Your task to perform on an android device: create a new album in the google photos Image 0: 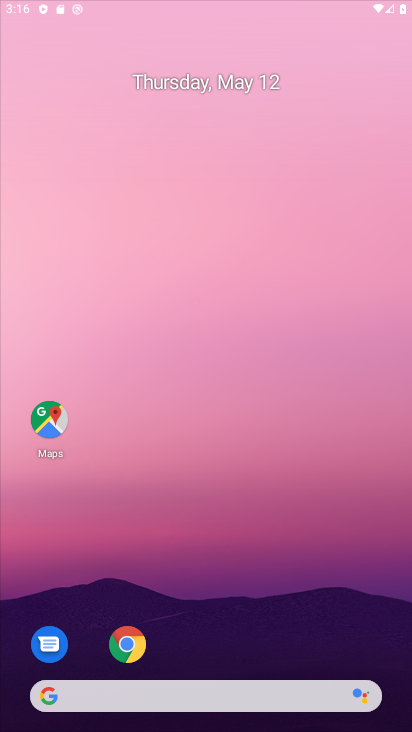
Step 0: click (222, 124)
Your task to perform on an android device: create a new album in the google photos Image 1: 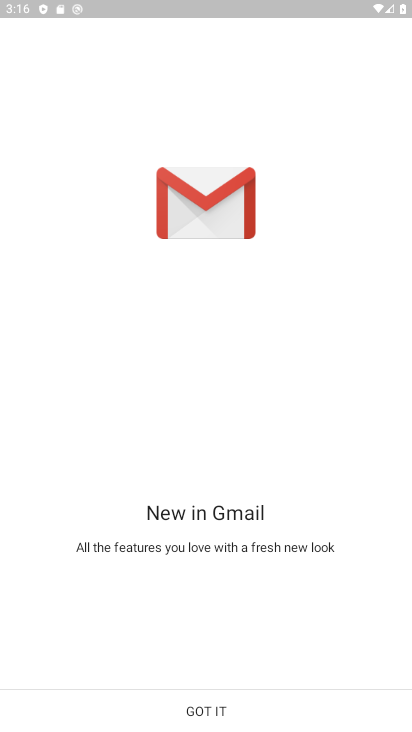
Step 1: press home button
Your task to perform on an android device: create a new album in the google photos Image 2: 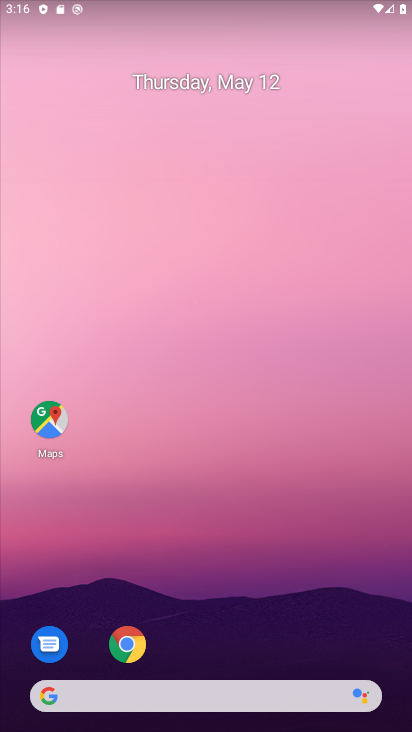
Step 2: drag from (247, 617) to (204, 84)
Your task to perform on an android device: create a new album in the google photos Image 3: 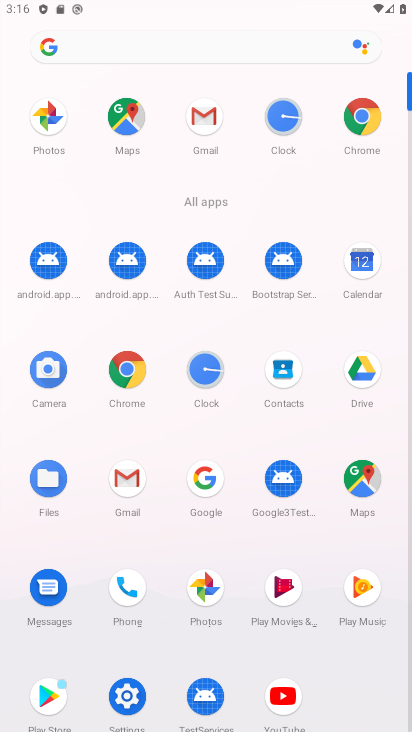
Step 3: click (47, 130)
Your task to perform on an android device: create a new album in the google photos Image 4: 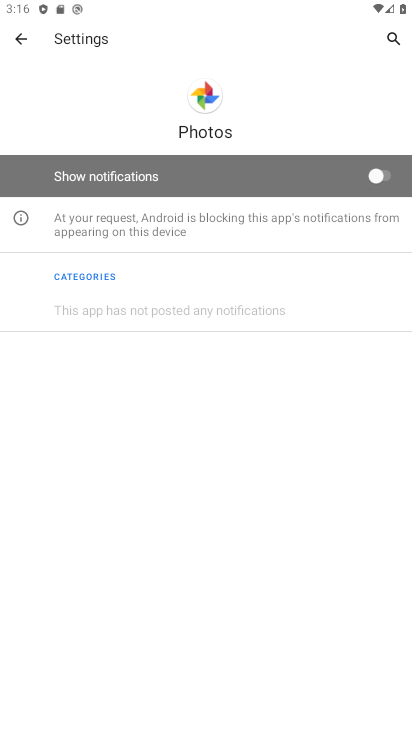
Step 4: press back button
Your task to perform on an android device: create a new album in the google photos Image 5: 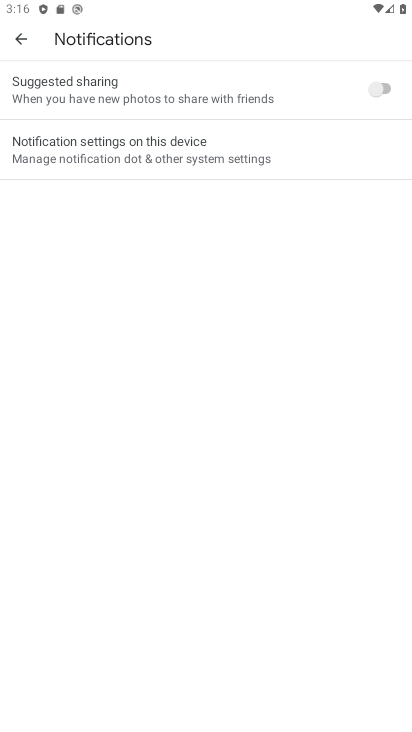
Step 5: press back button
Your task to perform on an android device: create a new album in the google photos Image 6: 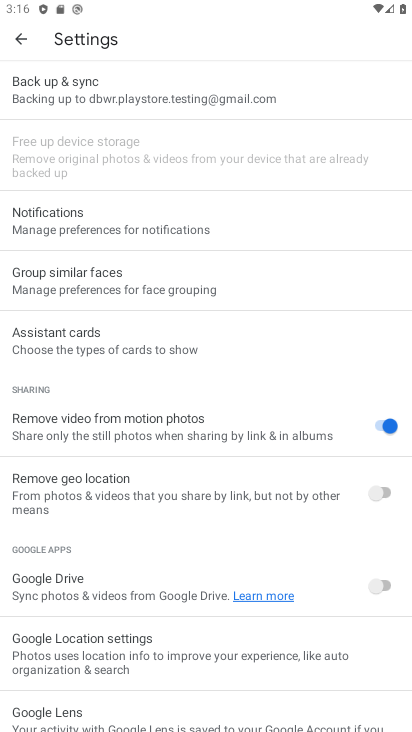
Step 6: press back button
Your task to perform on an android device: create a new album in the google photos Image 7: 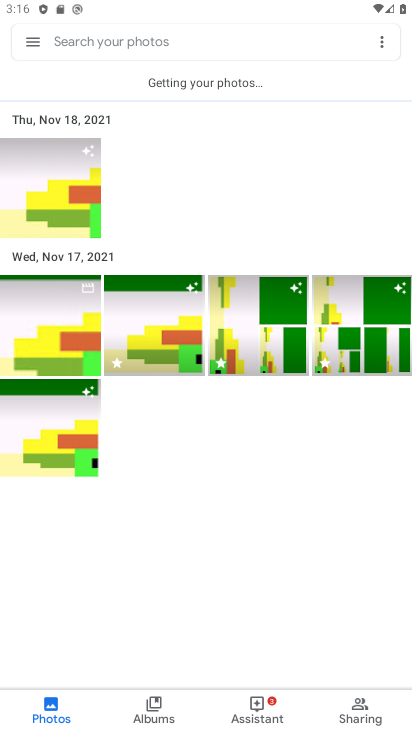
Step 7: click (373, 46)
Your task to perform on an android device: create a new album in the google photos Image 8: 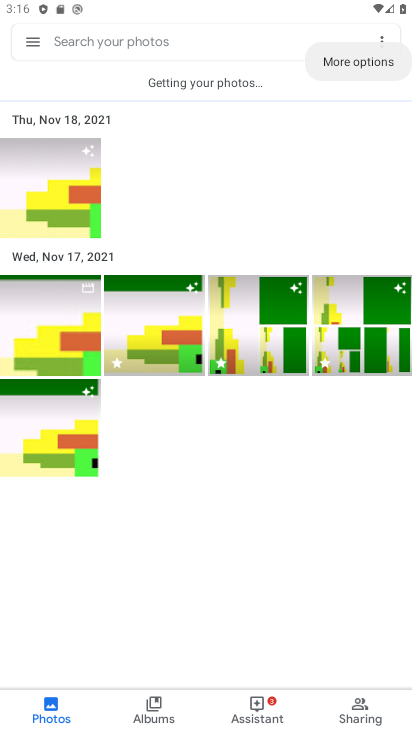
Step 8: click (383, 45)
Your task to perform on an android device: create a new album in the google photos Image 9: 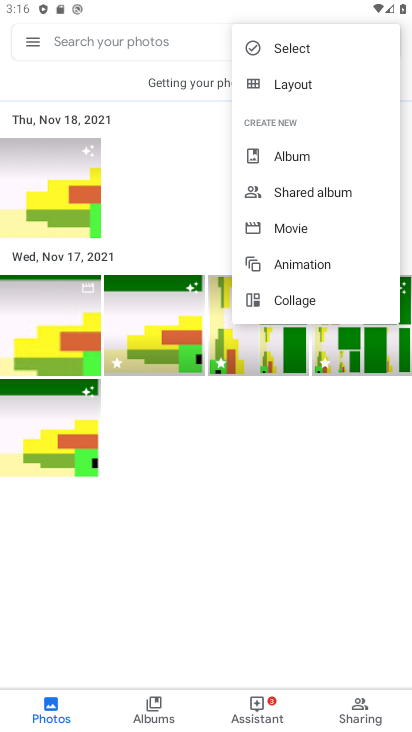
Step 9: click (297, 154)
Your task to perform on an android device: create a new album in the google photos Image 10: 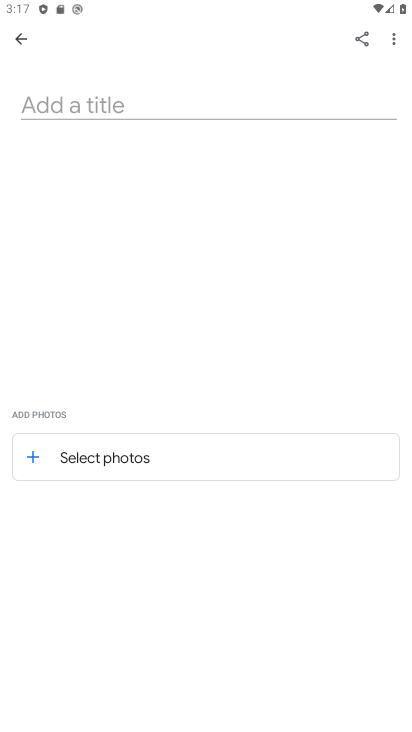
Step 10: click (113, 108)
Your task to perform on an android device: create a new album in the google photos Image 11: 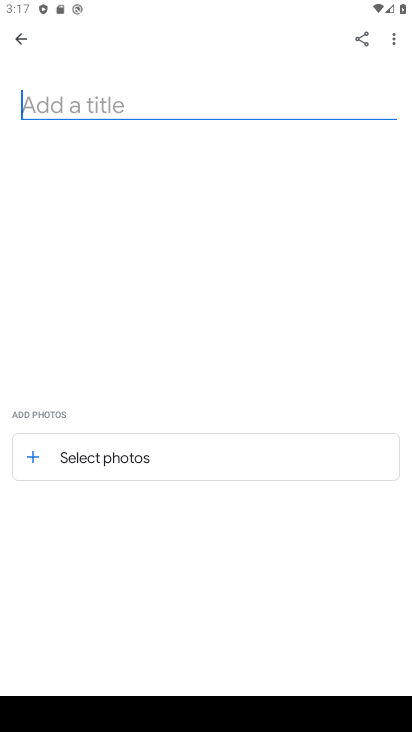
Step 11: type "thy"
Your task to perform on an android device: create a new album in the google photos Image 12: 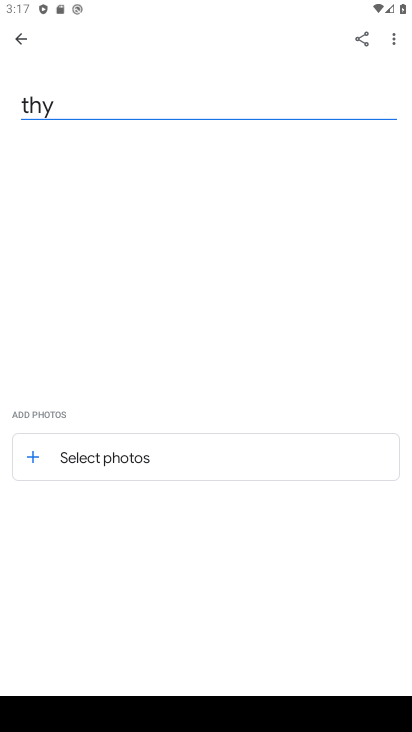
Step 12: click (143, 464)
Your task to perform on an android device: create a new album in the google photos Image 13: 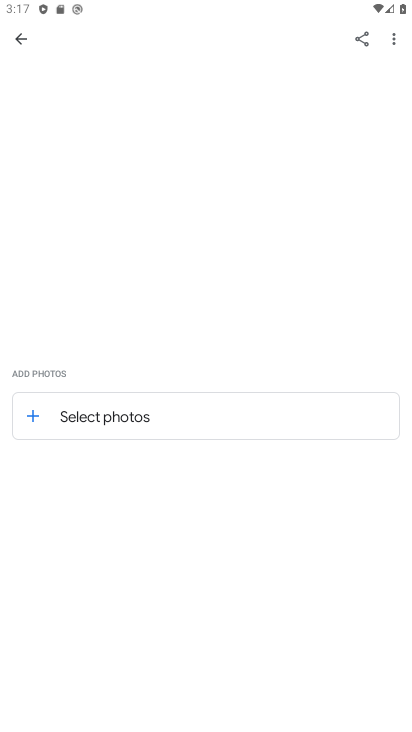
Step 13: click (95, 421)
Your task to perform on an android device: create a new album in the google photos Image 14: 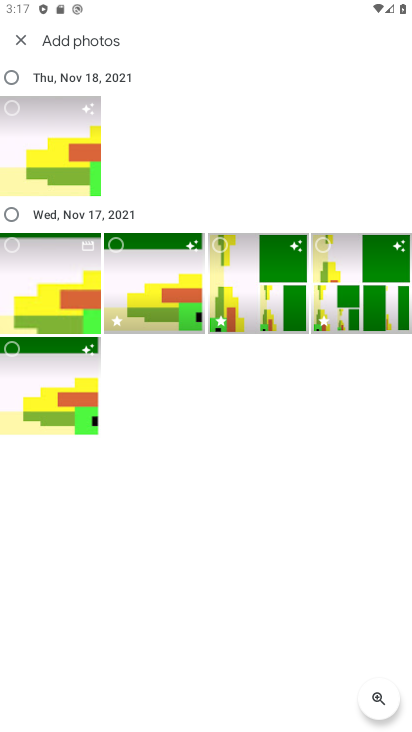
Step 14: click (65, 188)
Your task to perform on an android device: create a new album in the google photos Image 15: 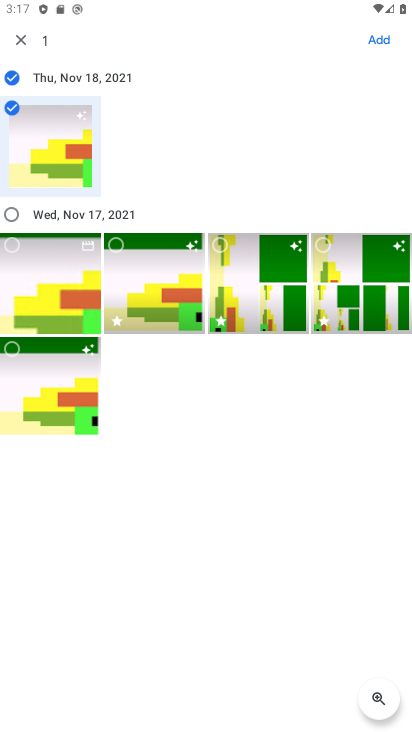
Step 15: click (387, 35)
Your task to perform on an android device: create a new album in the google photos Image 16: 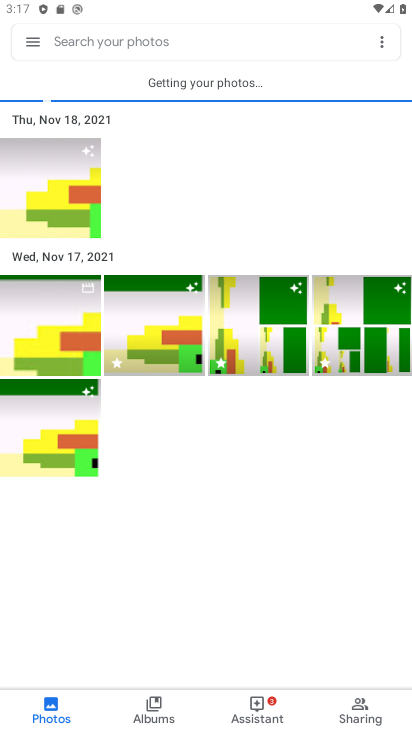
Step 16: click (152, 711)
Your task to perform on an android device: create a new album in the google photos Image 17: 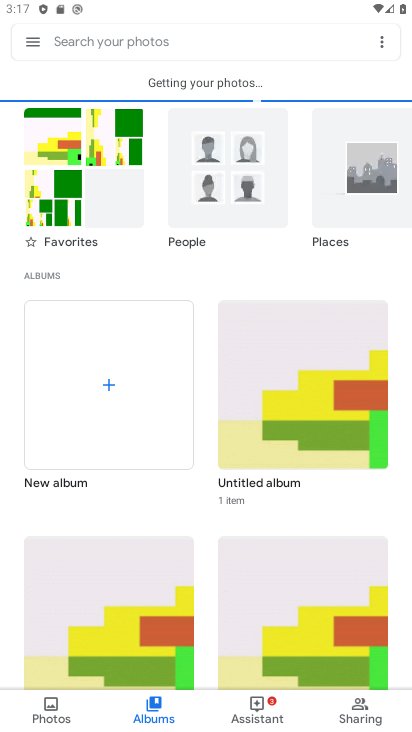
Step 17: drag from (161, 562) to (222, 208)
Your task to perform on an android device: create a new album in the google photos Image 18: 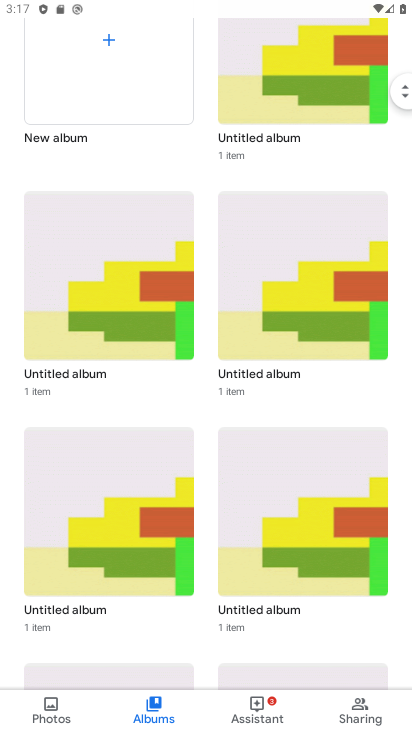
Step 18: drag from (204, 596) to (223, 110)
Your task to perform on an android device: create a new album in the google photos Image 19: 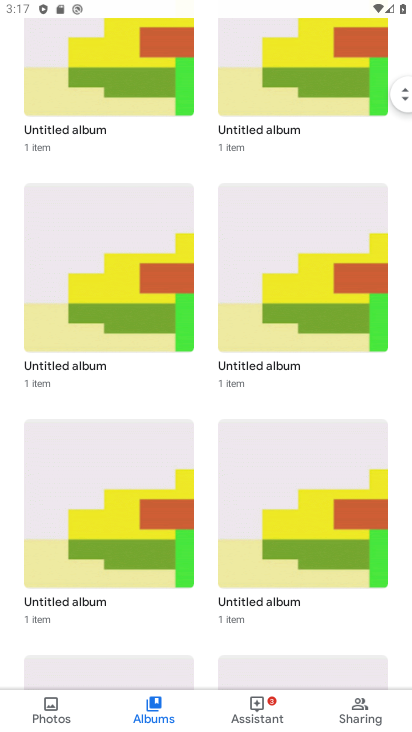
Step 19: drag from (221, 242) to (181, 603)
Your task to perform on an android device: create a new album in the google photos Image 20: 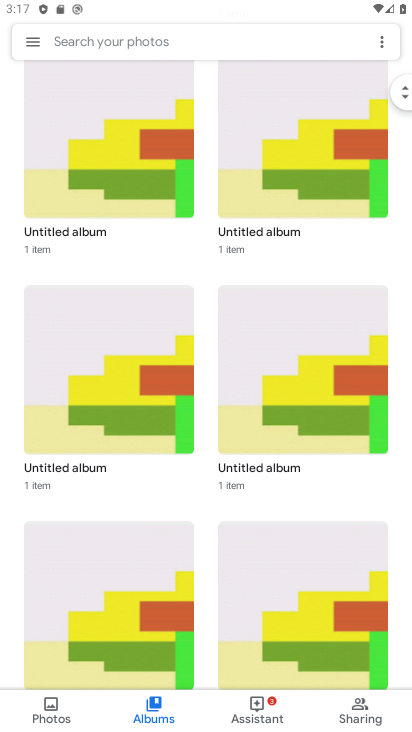
Step 20: drag from (172, 148) to (149, 659)
Your task to perform on an android device: create a new album in the google photos Image 21: 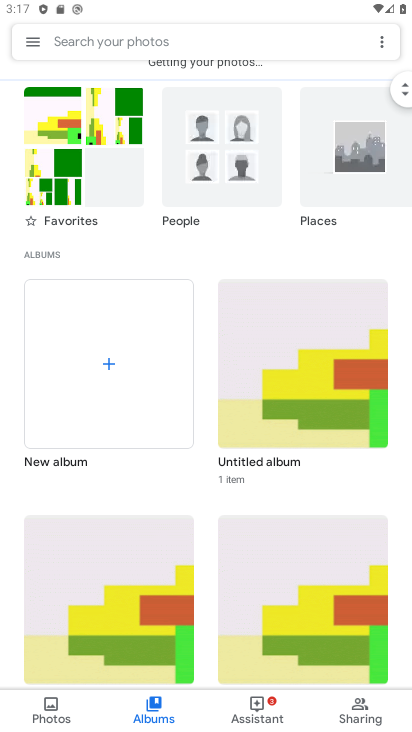
Step 21: click (86, 400)
Your task to perform on an android device: create a new album in the google photos Image 22: 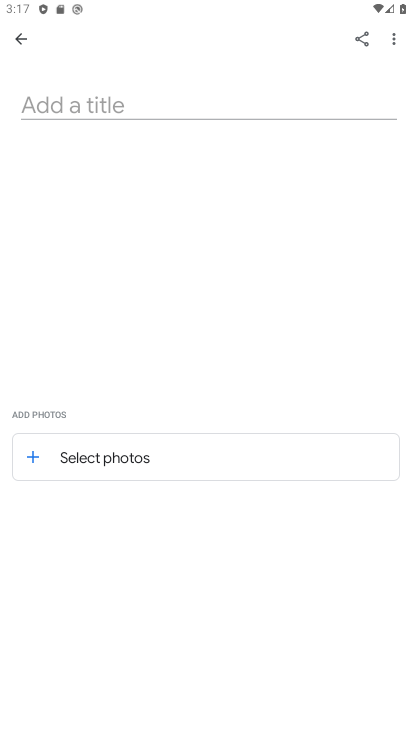
Step 22: click (98, 459)
Your task to perform on an android device: create a new album in the google photos Image 23: 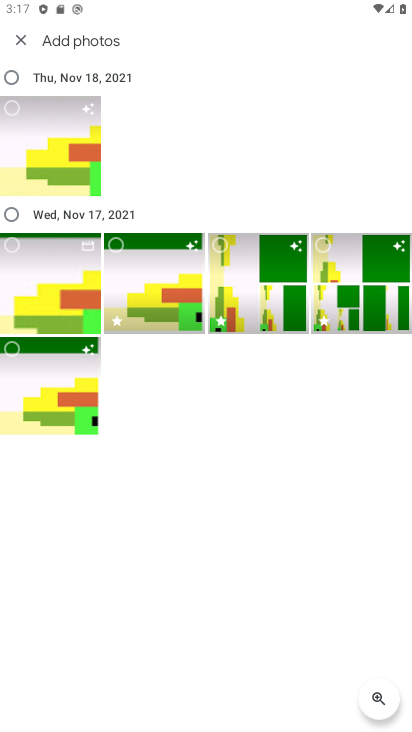
Step 23: click (77, 195)
Your task to perform on an android device: create a new album in the google photos Image 24: 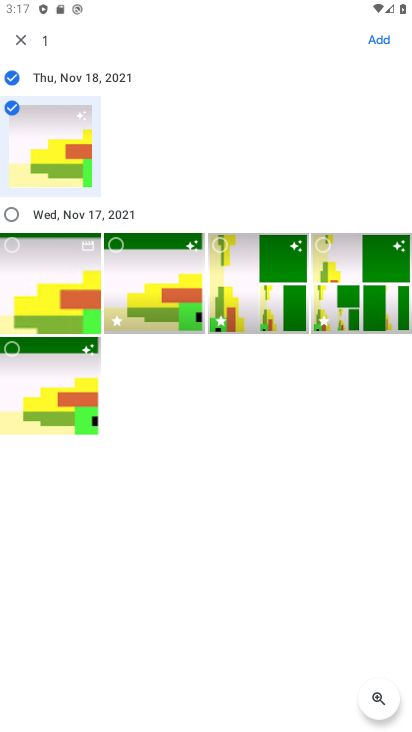
Step 24: click (379, 35)
Your task to perform on an android device: create a new album in the google photos Image 25: 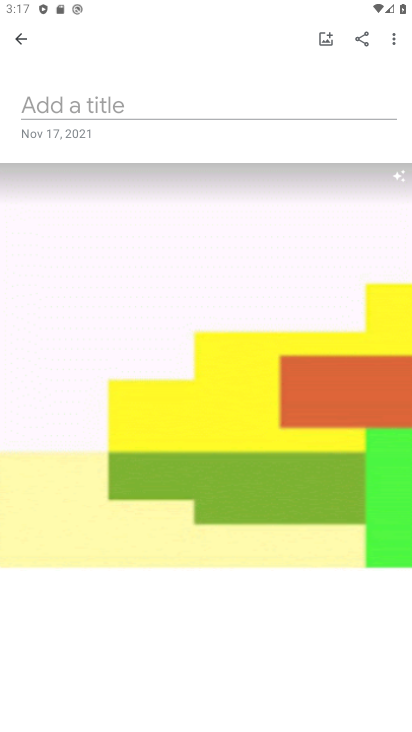
Step 25: task complete